Your task to perform on an android device: star an email in the gmail app Image 0: 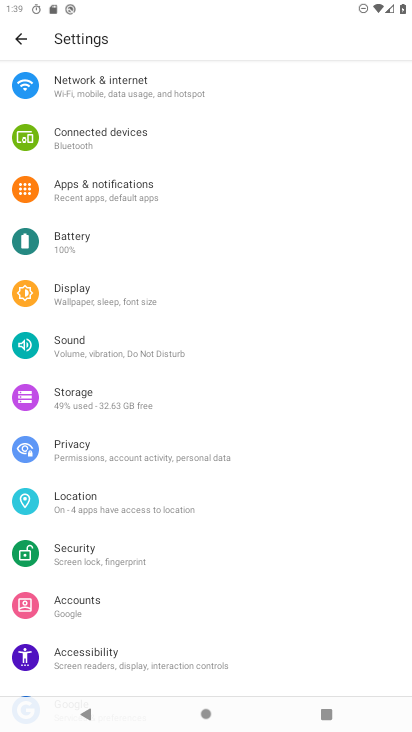
Step 0: press home button
Your task to perform on an android device: star an email in the gmail app Image 1: 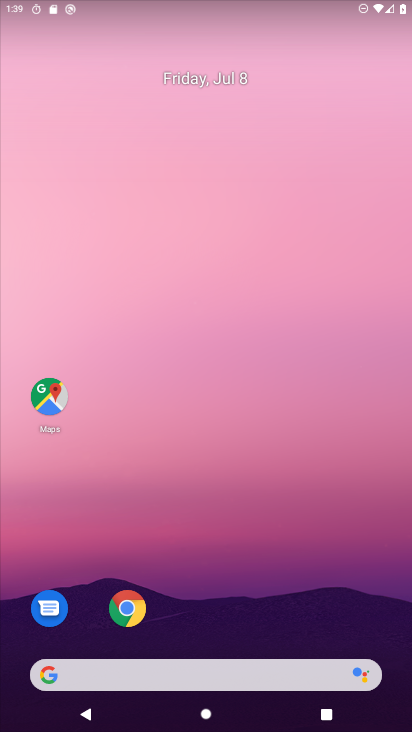
Step 1: drag from (234, 726) to (236, 225)
Your task to perform on an android device: star an email in the gmail app Image 2: 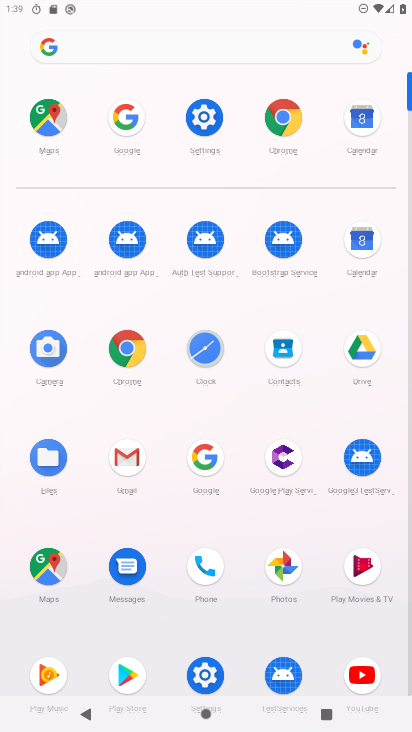
Step 2: click (127, 458)
Your task to perform on an android device: star an email in the gmail app Image 3: 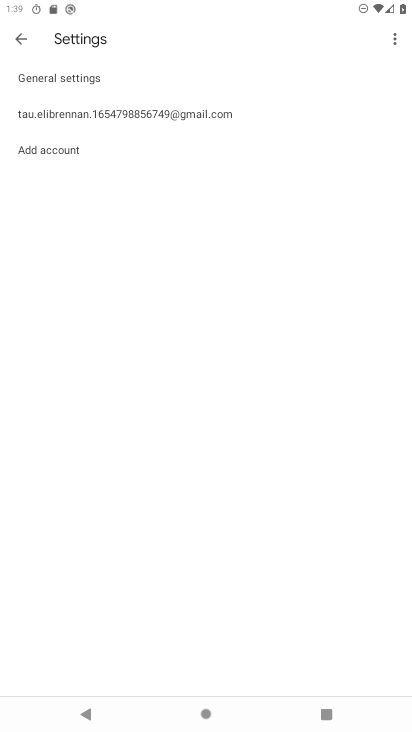
Step 3: click (22, 39)
Your task to perform on an android device: star an email in the gmail app Image 4: 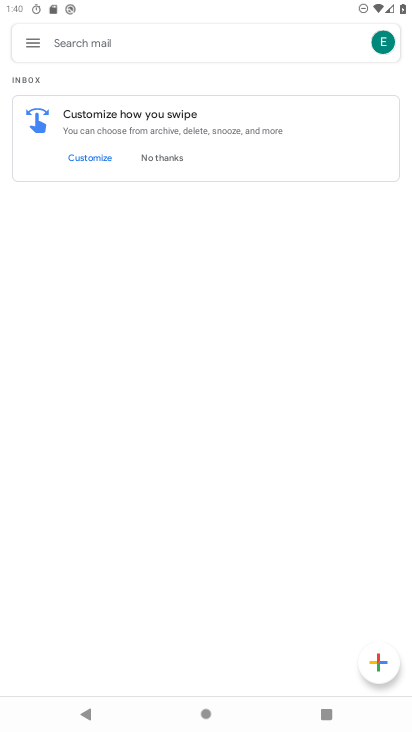
Step 4: task complete